Your task to perform on an android device: Open my contact list Image 0: 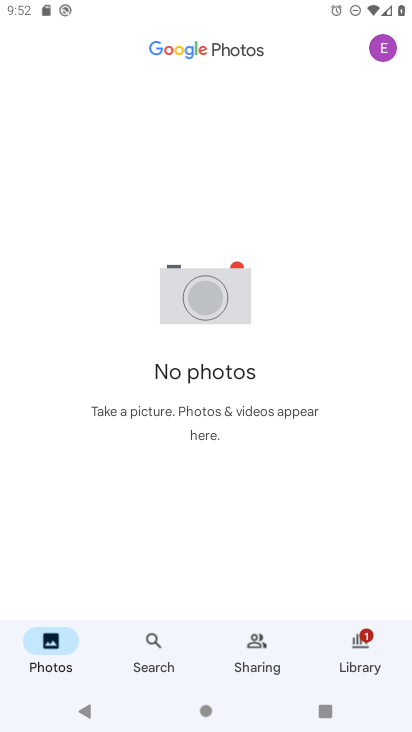
Step 0: press home button
Your task to perform on an android device: Open my contact list Image 1: 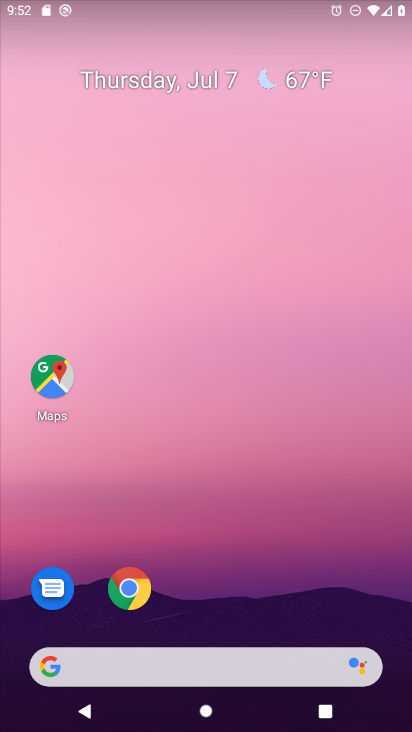
Step 1: drag from (252, 605) to (155, 46)
Your task to perform on an android device: Open my contact list Image 2: 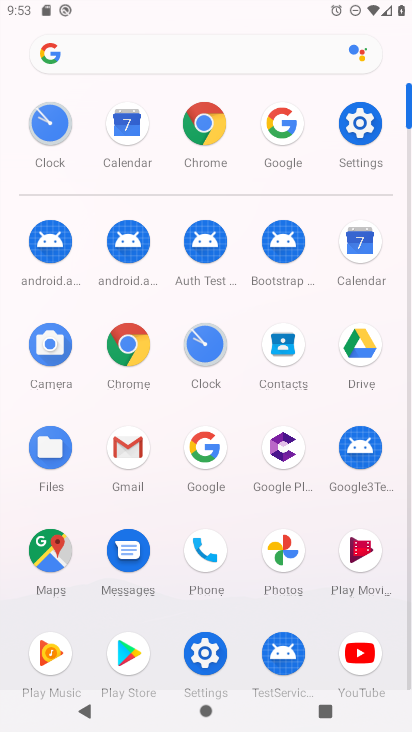
Step 2: click (283, 345)
Your task to perform on an android device: Open my contact list Image 3: 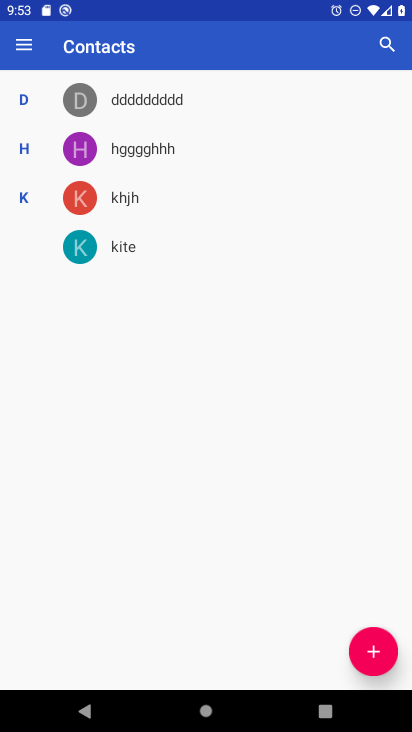
Step 3: task complete